Your task to perform on an android device: toggle airplane mode Image 0: 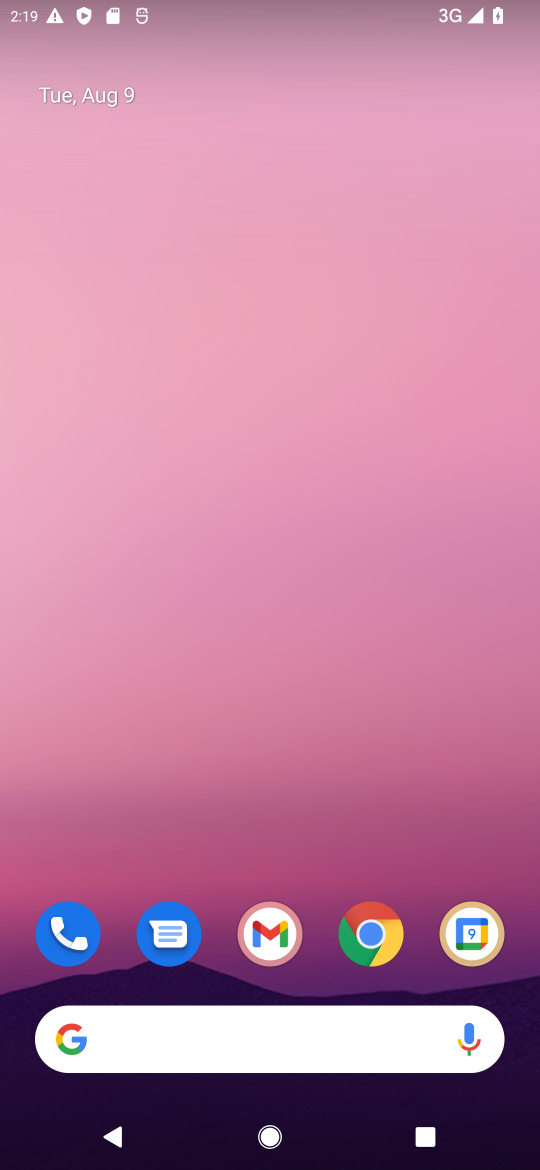
Step 0: task complete